Your task to perform on an android device: change text size in settings app Image 0: 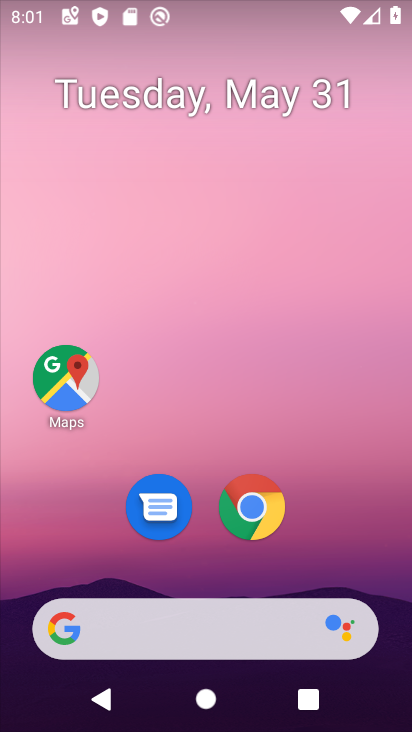
Step 0: drag from (45, 603) to (283, 165)
Your task to perform on an android device: change text size in settings app Image 1: 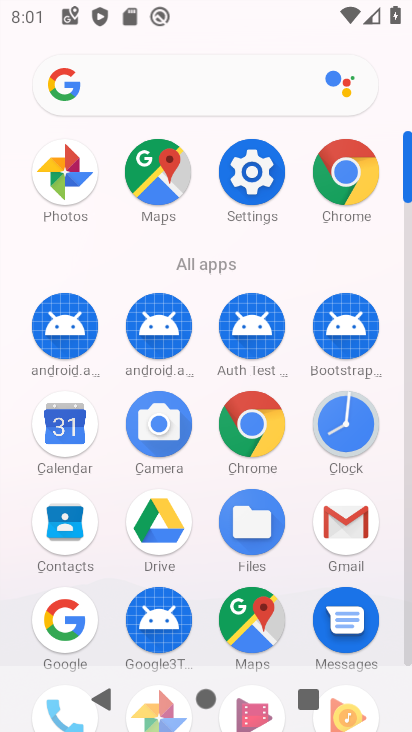
Step 1: click (252, 184)
Your task to perform on an android device: change text size in settings app Image 2: 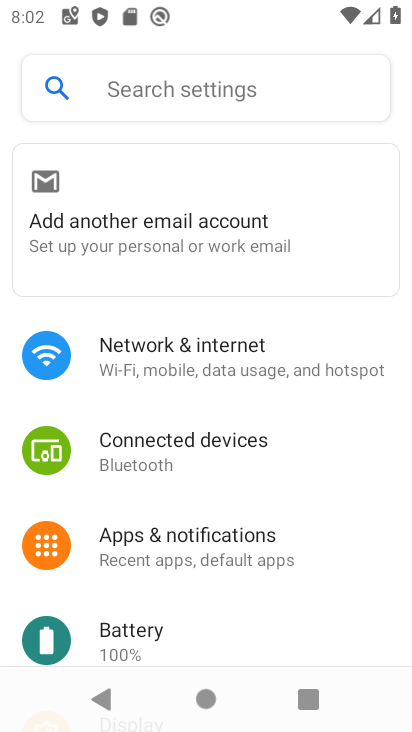
Step 2: drag from (17, 585) to (304, 272)
Your task to perform on an android device: change text size in settings app Image 3: 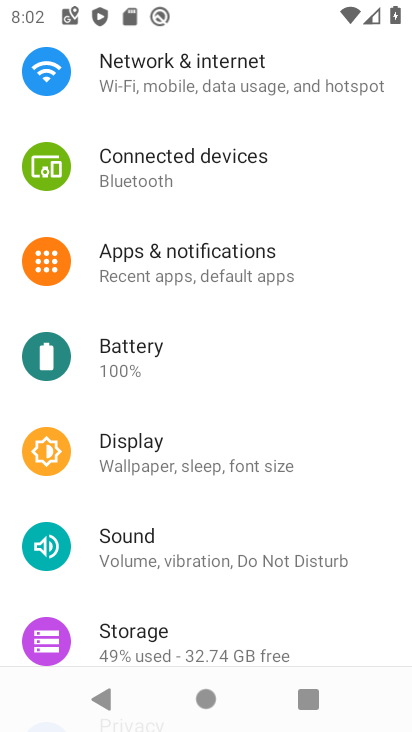
Step 3: click (193, 482)
Your task to perform on an android device: change text size in settings app Image 4: 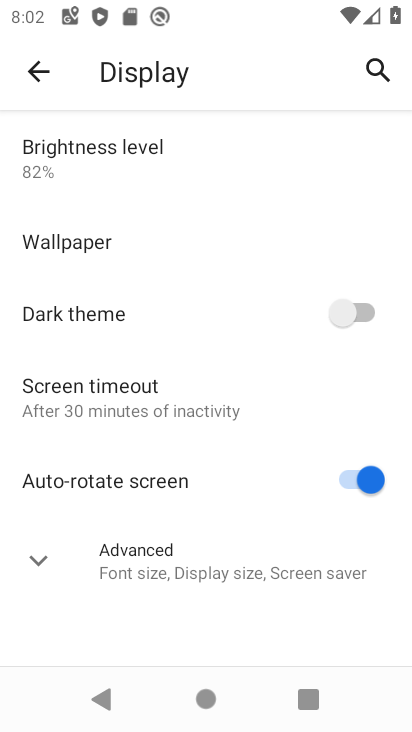
Step 4: click (142, 577)
Your task to perform on an android device: change text size in settings app Image 5: 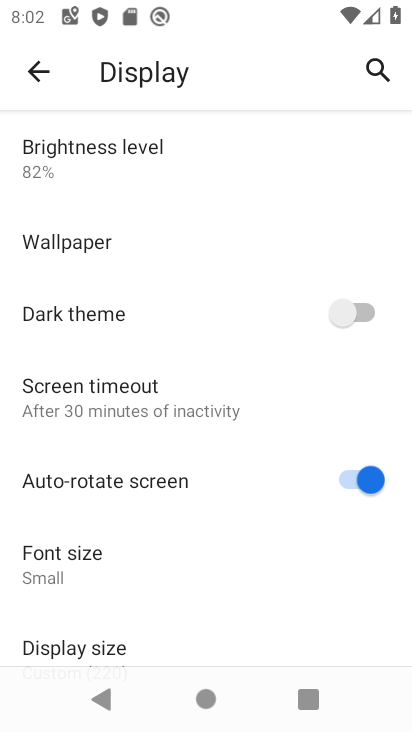
Step 5: click (41, 579)
Your task to perform on an android device: change text size in settings app Image 6: 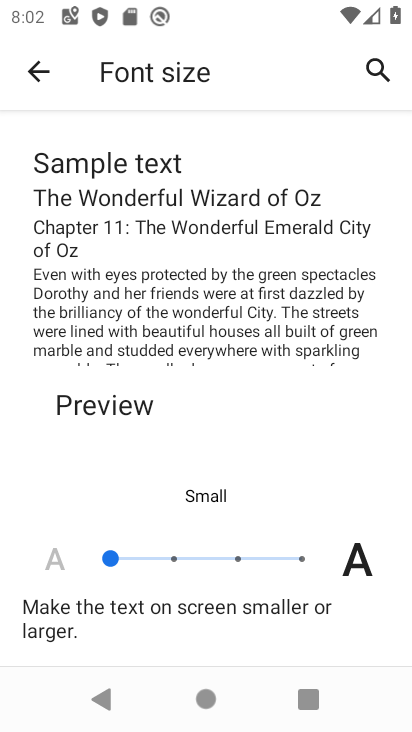
Step 6: click (174, 558)
Your task to perform on an android device: change text size in settings app Image 7: 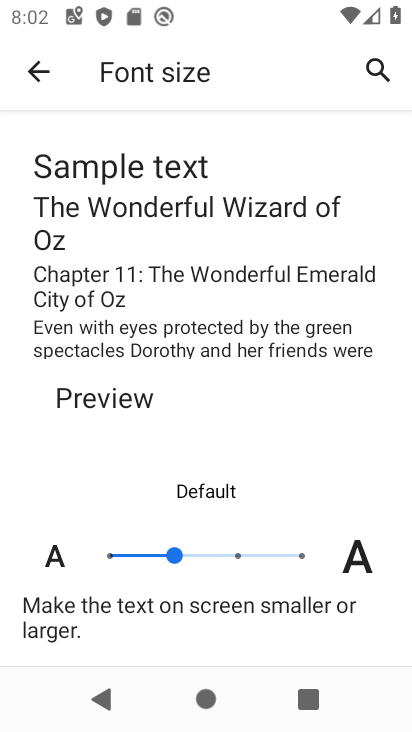
Step 7: task complete